Your task to perform on an android device: turn on bluetooth scan Image 0: 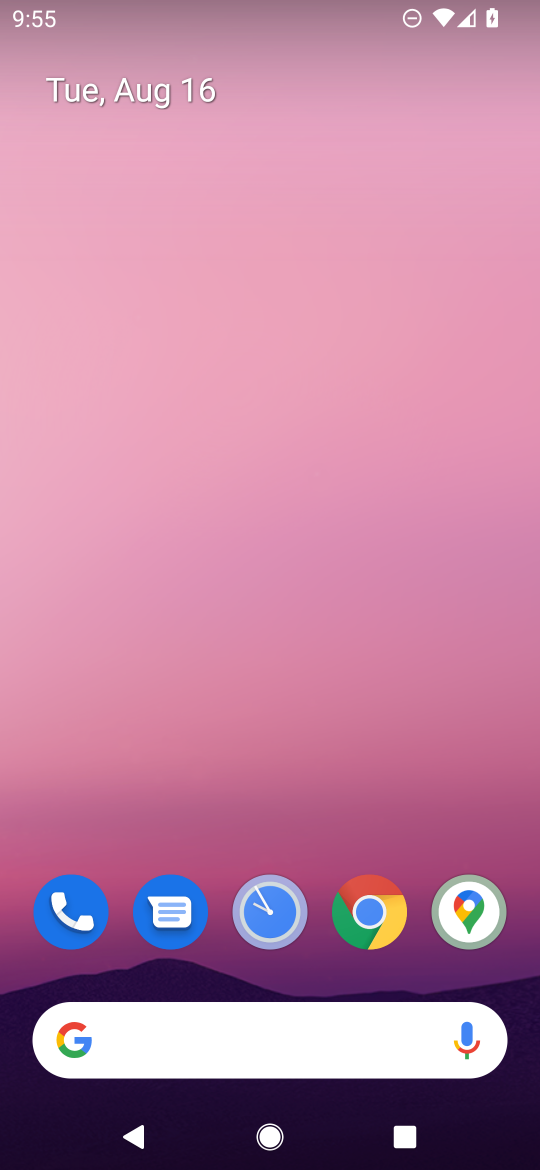
Step 0: drag from (214, 960) to (313, 115)
Your task to perform on an android device: turn on bluetooth scan Image 1: 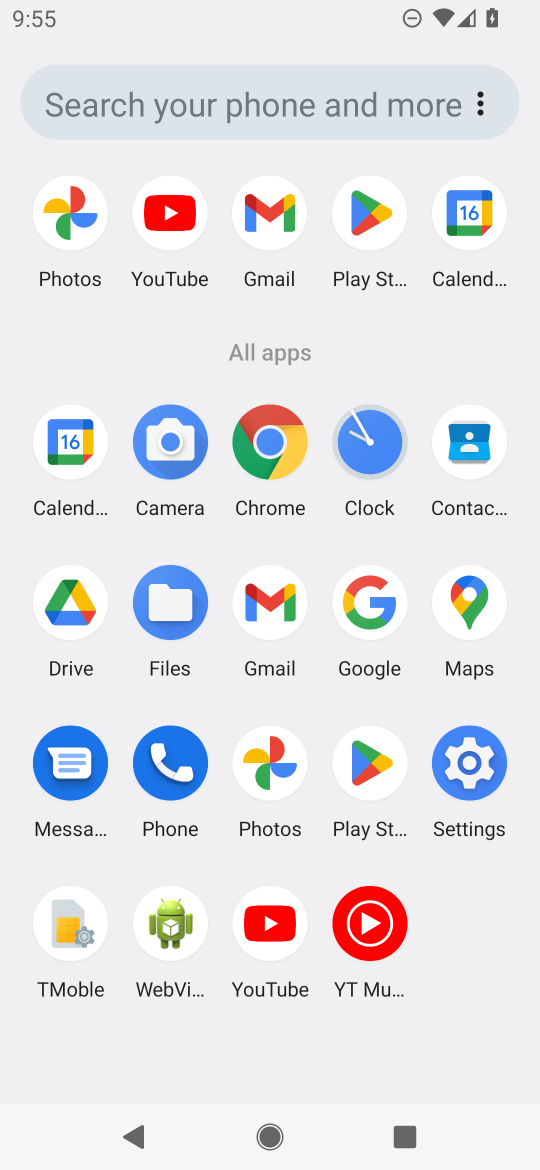
Step 1: click (467, 770)
Your task to perform on an android device: turn on bluetooth scan Image 2: 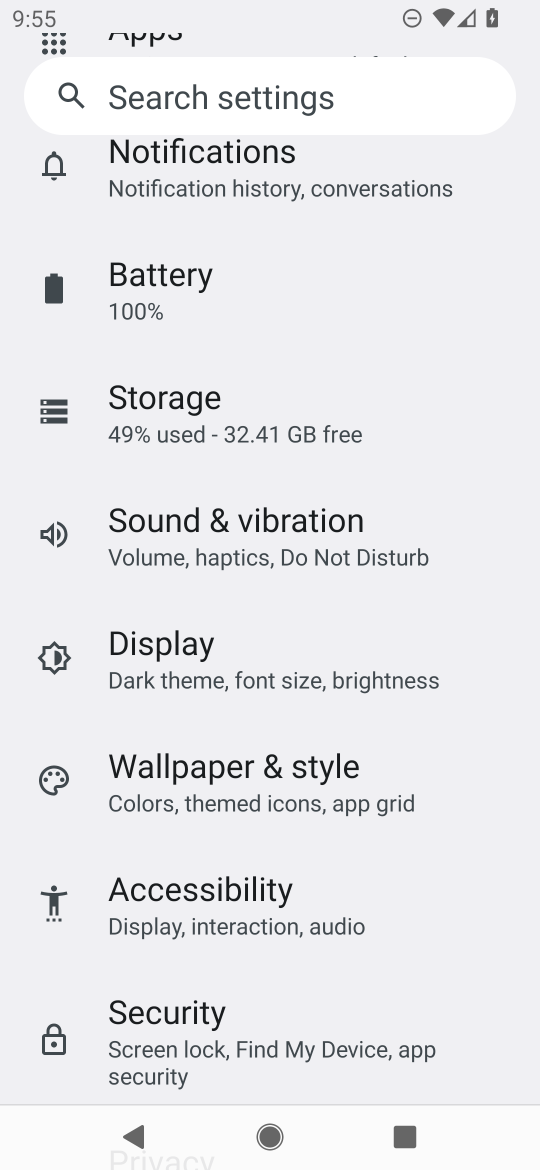
Step 2: drag from (215, 963) to (292, 245)
Your task to perform on an android device: turn on bluetooth scan Image 3: 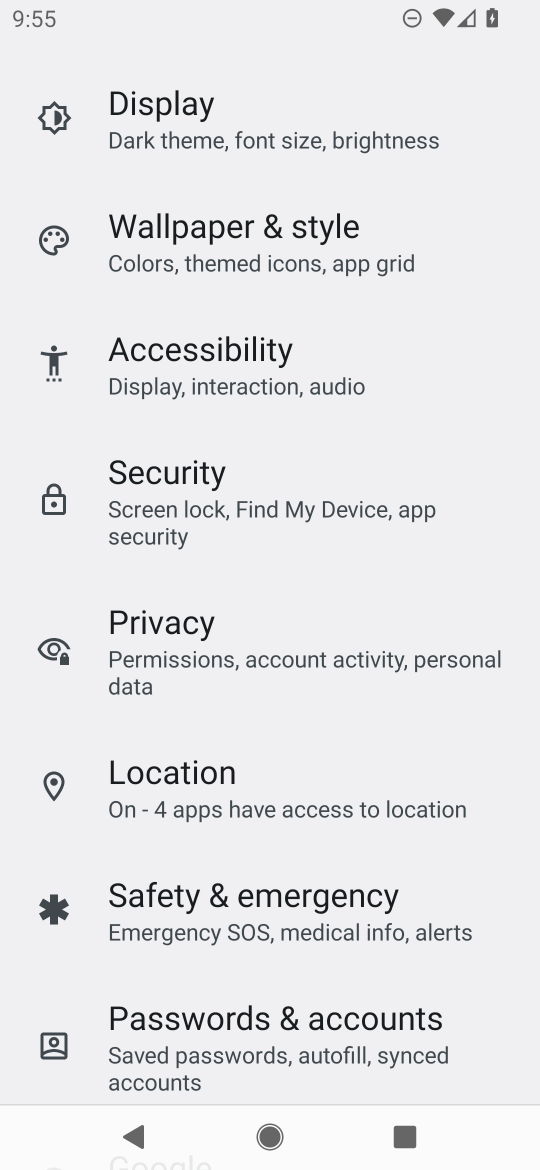
Step 3: click (196, 770)
Your task to perform on an android device: turn on bluetooth scan Image 4: 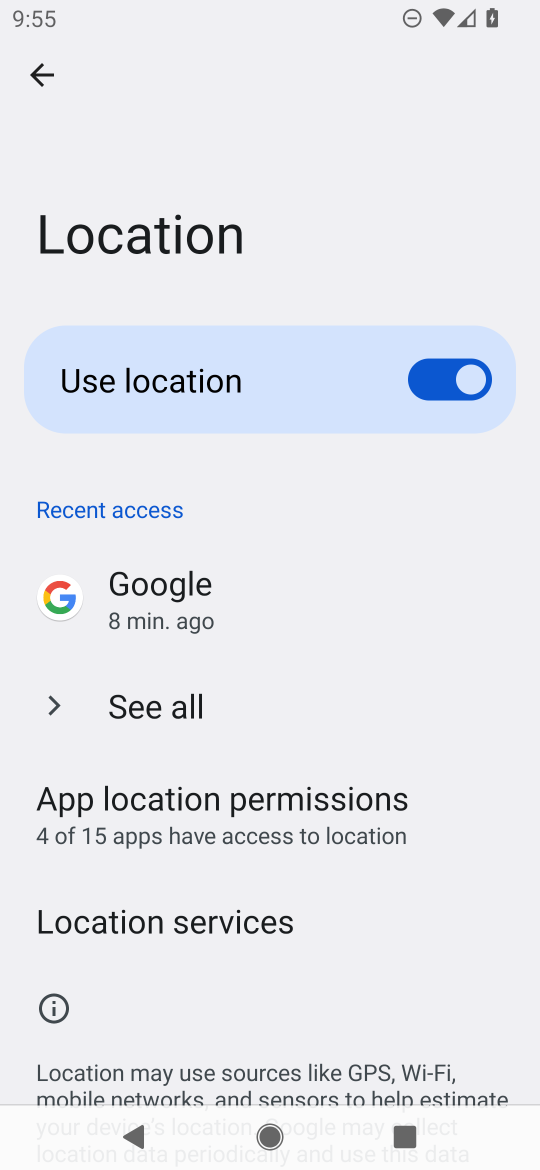
Step 4: drag from (319, 1030) to (317, 83)
Your task to perform on an android device: turn on bluetooth scan Image 5: 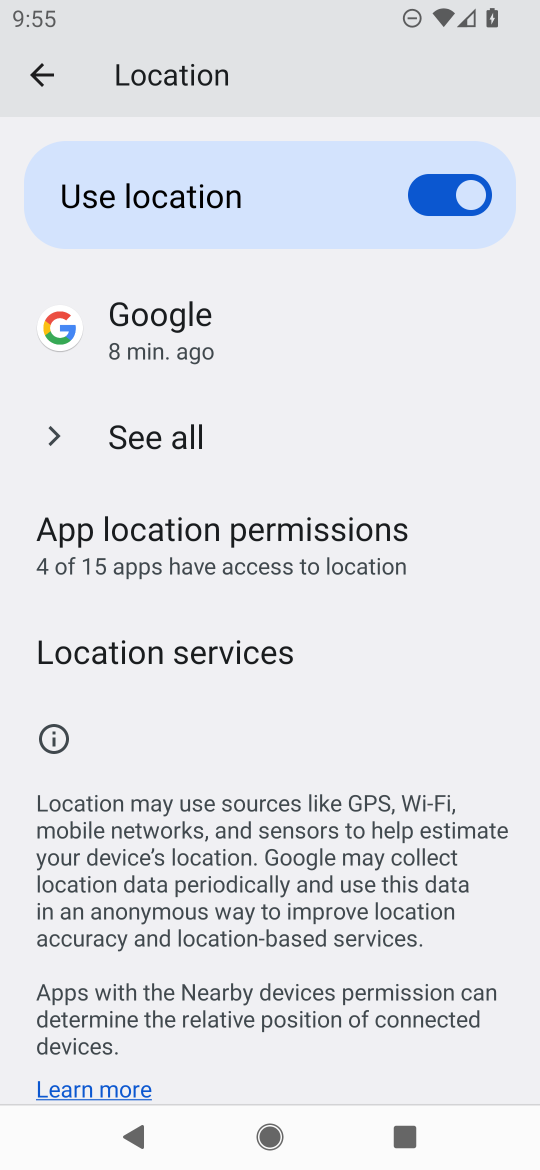
Step 5: drag from (185, 839) to (286, 96)
Your task to perform on an android device: turn on bluetooth scan Image 6: 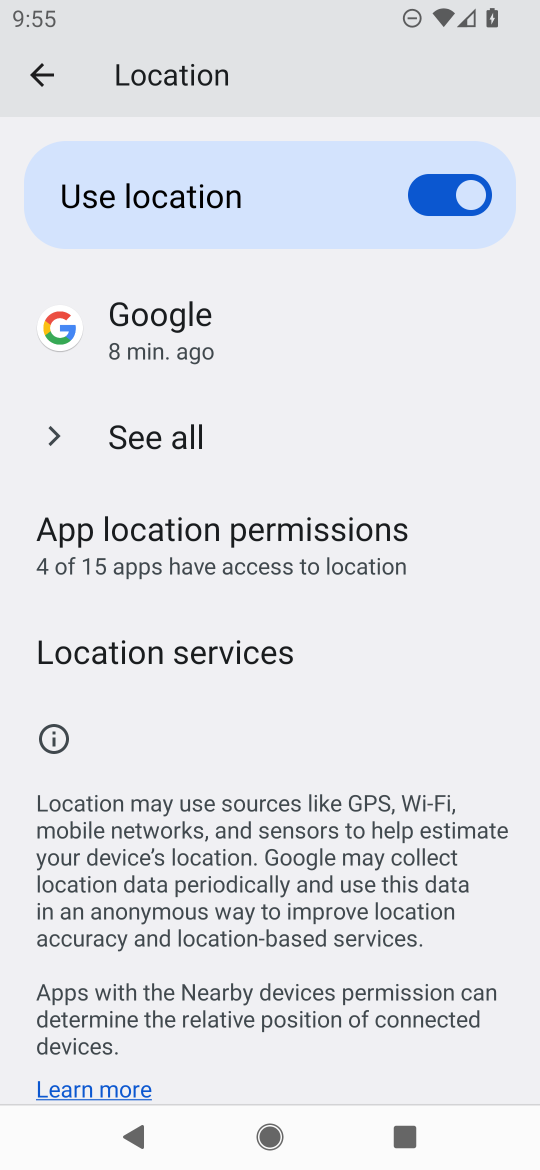
Step 6: click (372, 522)
Your task to perform on an android device: turn on bluetooth scan Image 7: 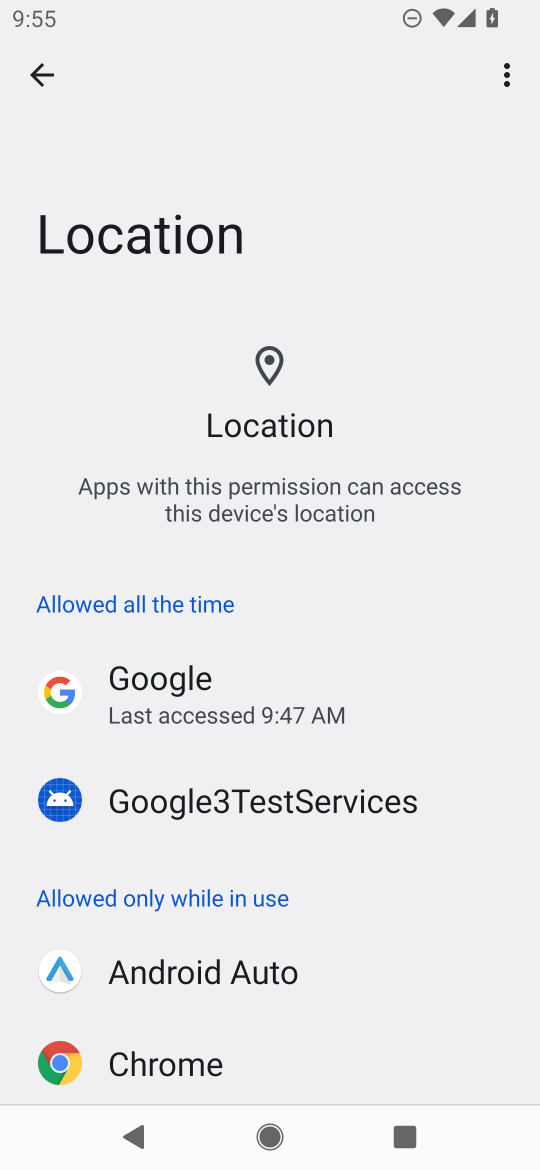
Step 7: click (28, 59)
Your task to perform on an android device: turn on bluetooth scan Image 8: 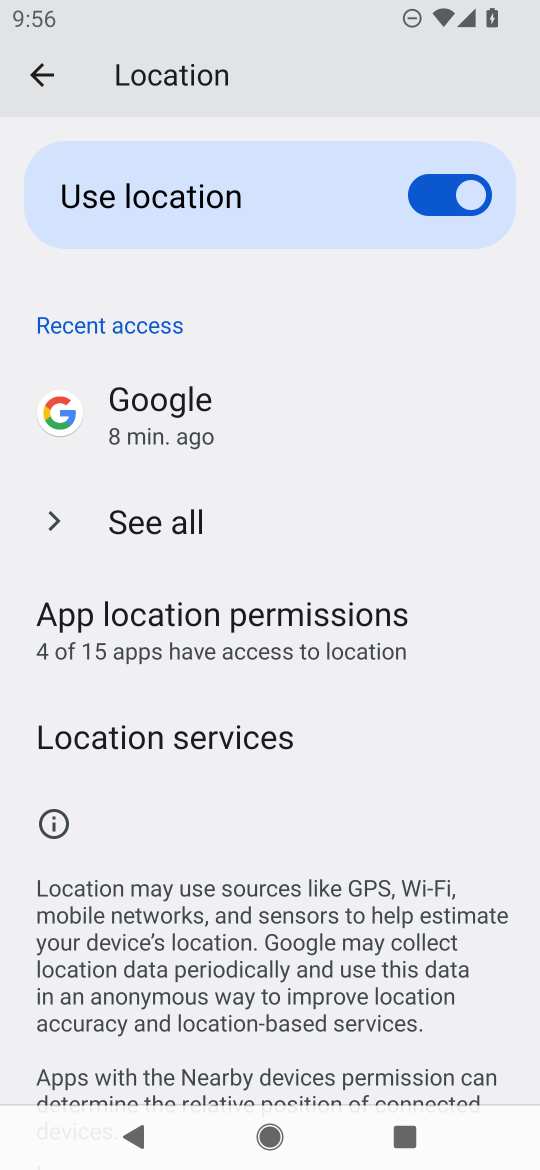
Step 8: click (211, 668)
Your task to perform on an android device: turn on bluetooth scan Image 9: 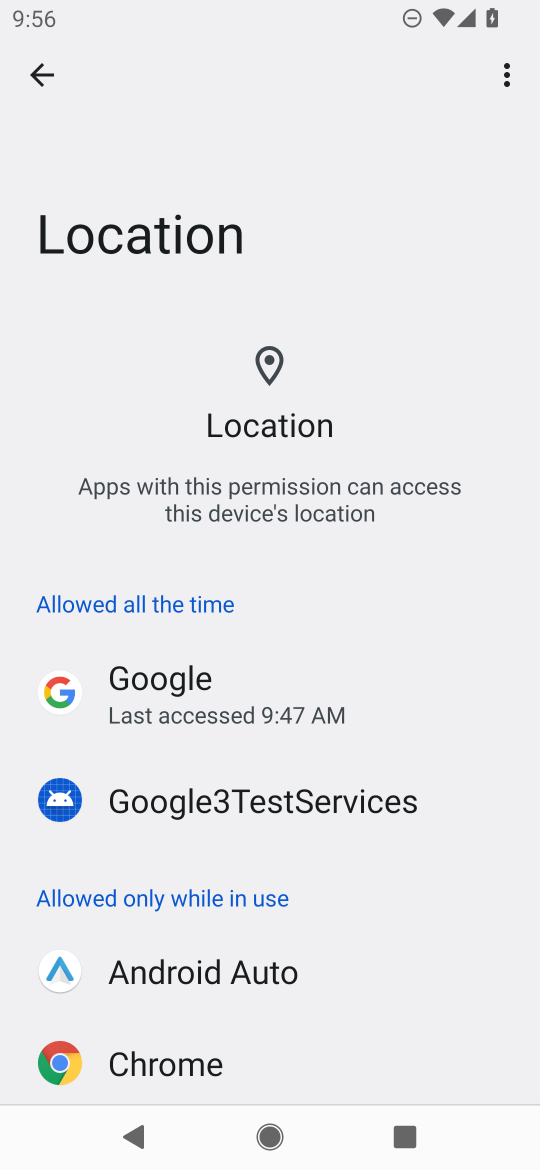
Step 9: click (60, 75)
Your task to perform on an android device: turn on bluetooth scan Image 10: 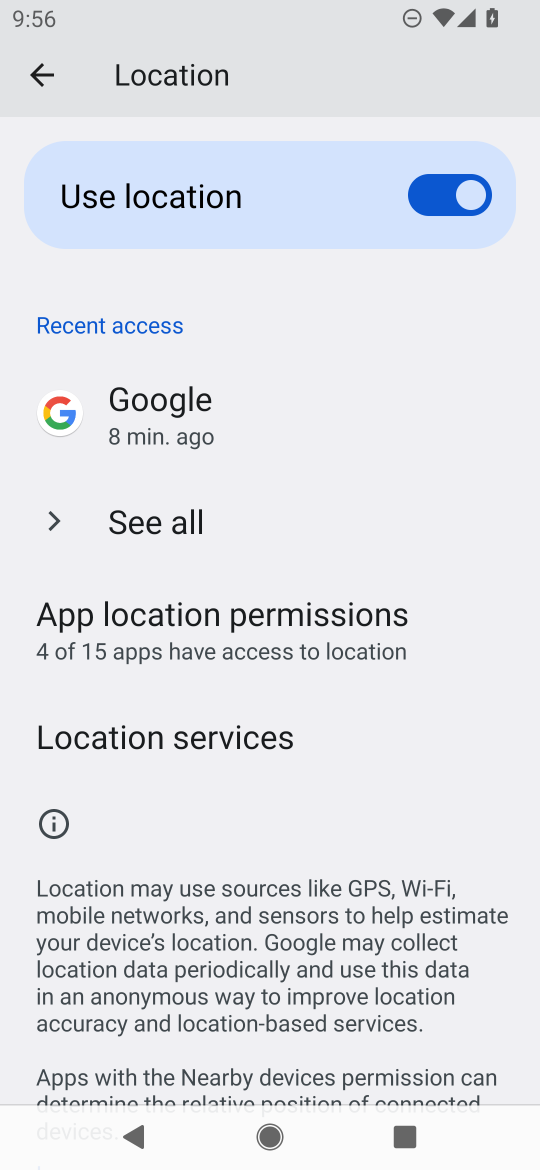
Step 10: click (266, 736)
Your task to perform on an android device: turn on bluetooth scan Image 11: 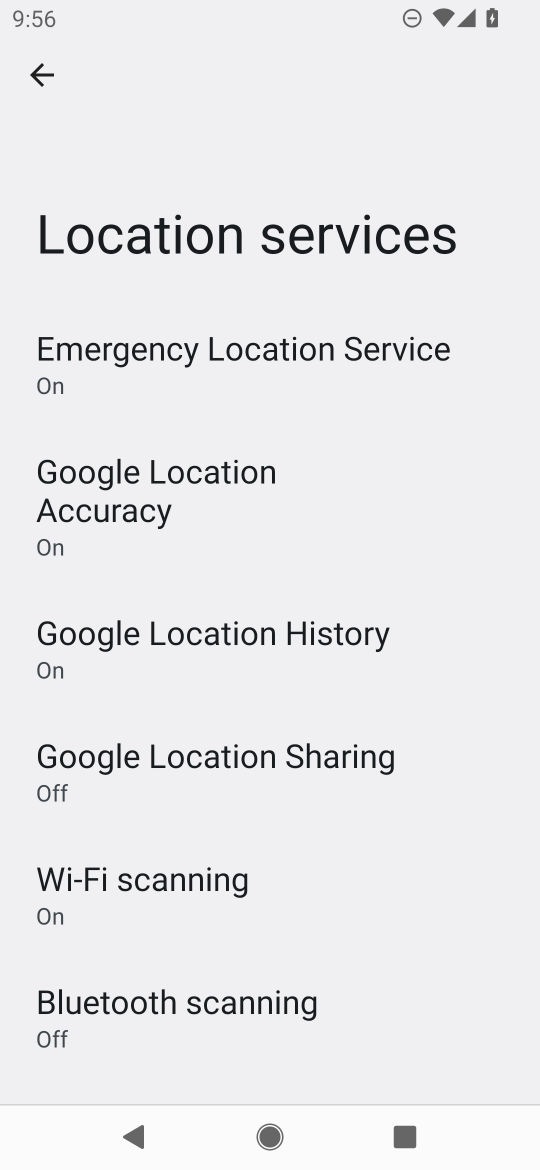
Step 11: click (169, 1013)
Your task to perform on an android device: turn on bluetooth scan Image 12: 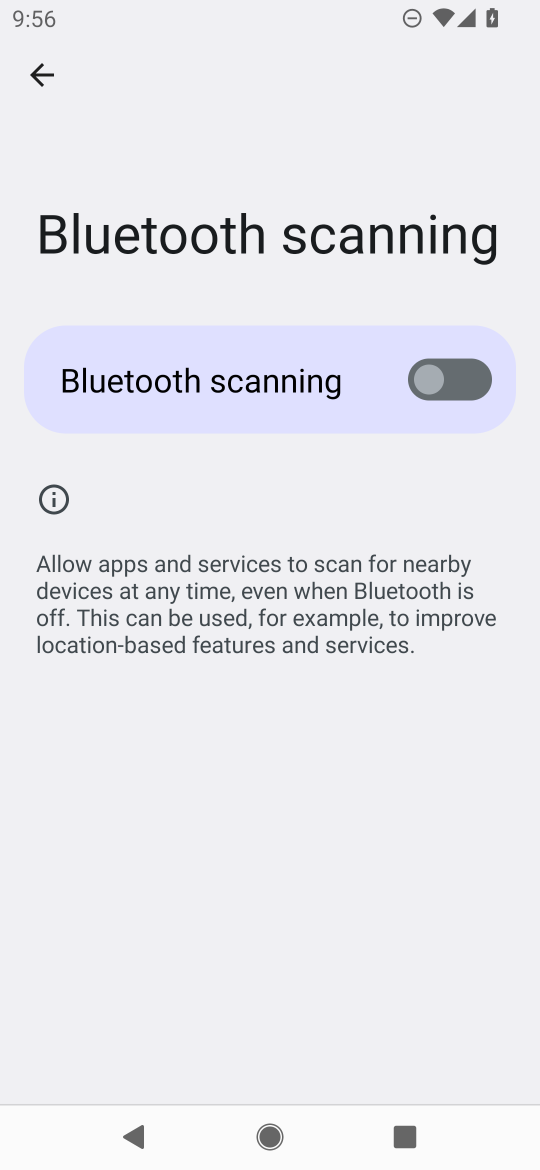
Step 12: click (474, 379)
Your task to perform on an android device: turn on bluetooth scan Image 13: 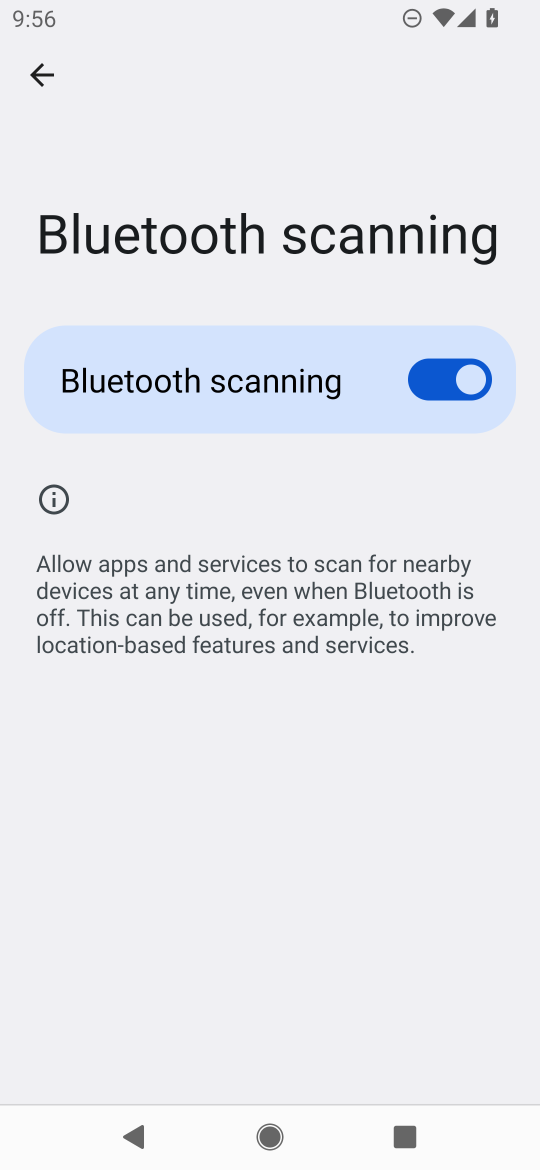
Step 13: task complete